Your task to perform on an android device: Go to Maps Image 0: 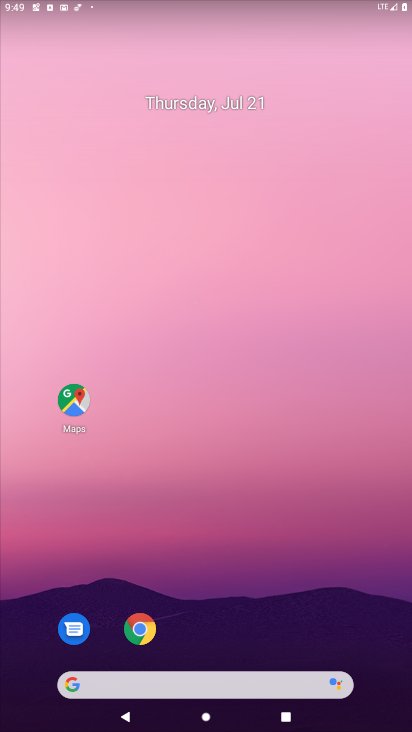
Step 0: drag from (273, 614) to (267, 85)
Your task to perform on an android device: Go to Maps Image 1: 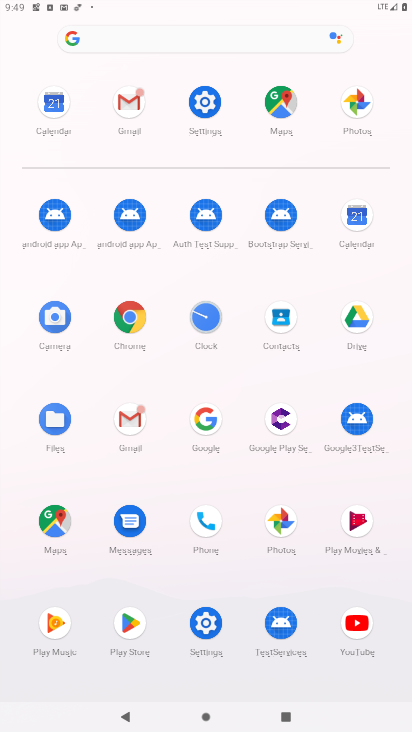
Step 1: click (56, 529)
Your task to perform on an android device: Go to Maps Image 2: 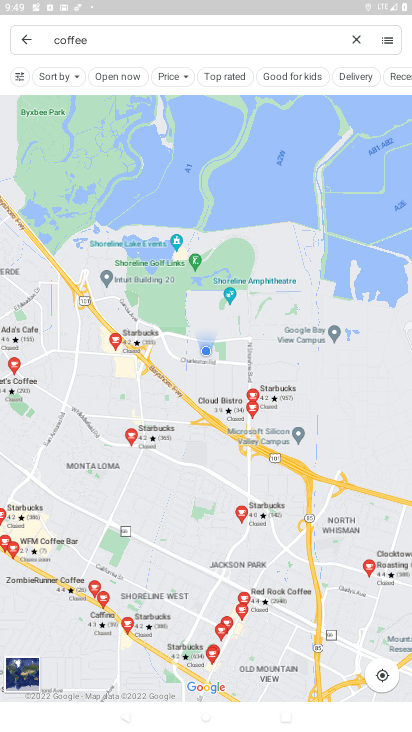
Step 2: click (357, 42)
Your task to perform on an android device: Go to Maps Image 3: 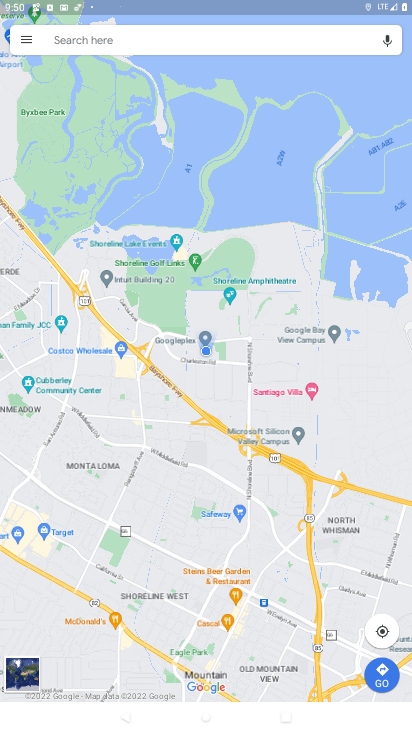
Step 3: task complete